Your task to perform on an android device: open sync settings in chrome Image 0: 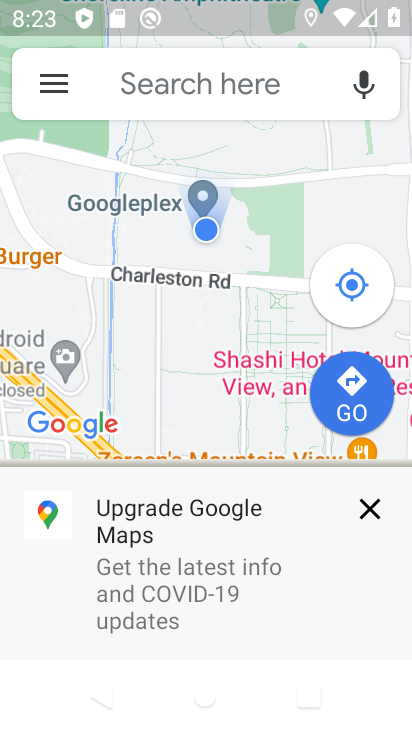
Step 0: press home button
Your task to perform on an android device: open sync settings in chrome Image 1: 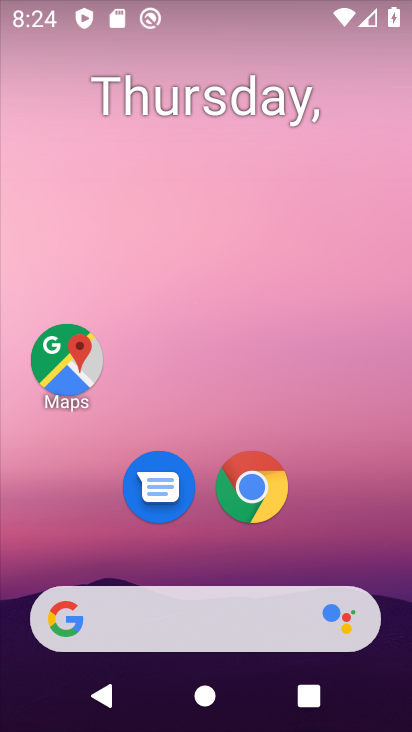
Step 1: drag from (265, 657) to (275, 285)
Your task to perform on an android device: open sync settings in chrome Image 2: 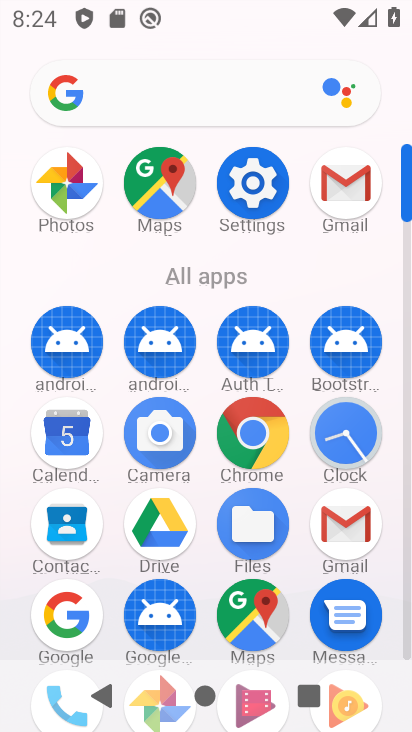
Step 2: click (246, 423)
Your task to perform on an android device: open sync settings in chrome Image 3: 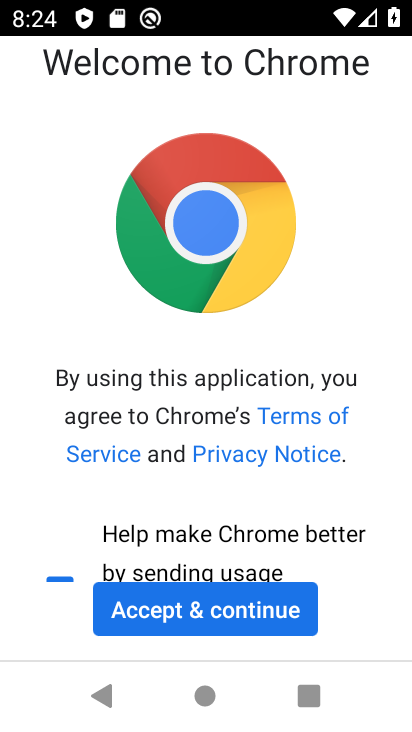
Step 3: click (166, 620)
Your task to perform on an android device: open sync settings in chrome Image 4: 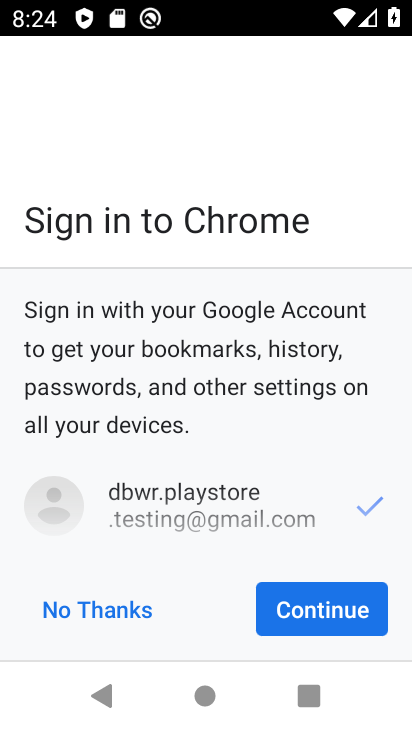
Step 4: click (310, 616)
Your task to perform on an android device: open sync settings in chrome Image 5: 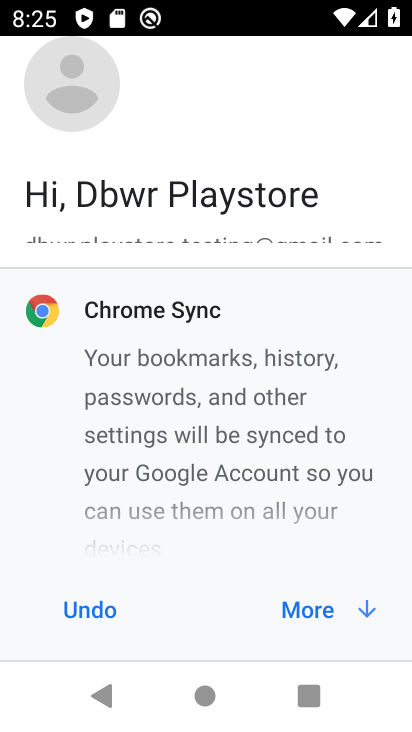
Step 5: click (376, 604)
Your task to perform on an android device: open sync settings in chrome Image 6: 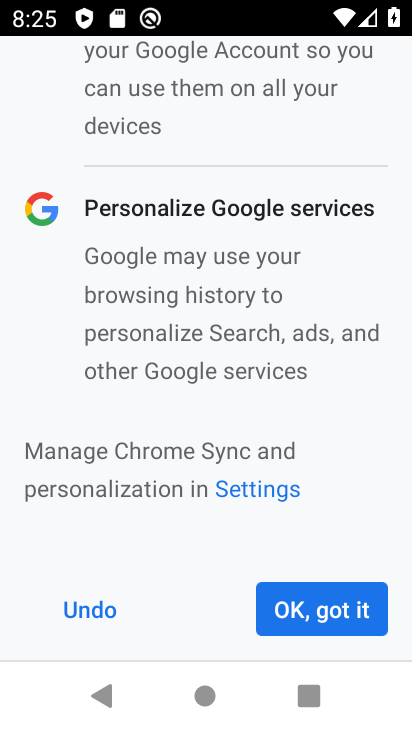
Step 6: click (372, 606)
Your task to perform on an android device: open sync settings in chrome Image 7: 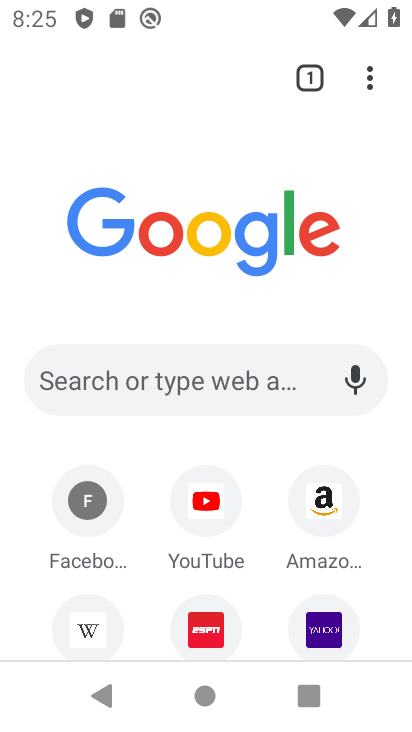
Step 7: click (360, 98)
Your task to perform on an android device: open sync settings in chrome Image 8: 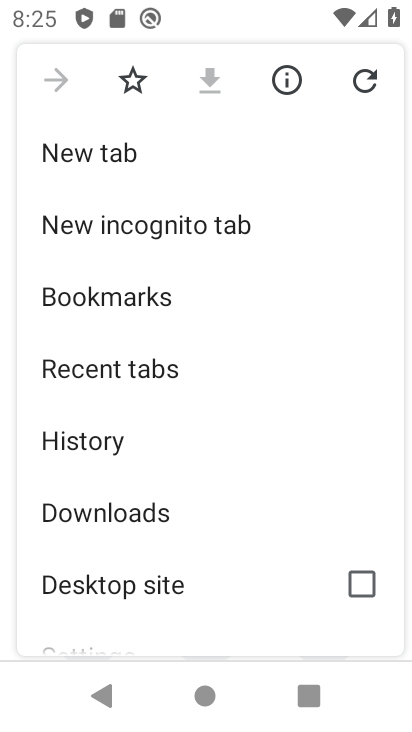
Step 8: drag from (115, 560) to (146, 444)
Your task to perform on an android device: open sync settings in chrome Image 9: 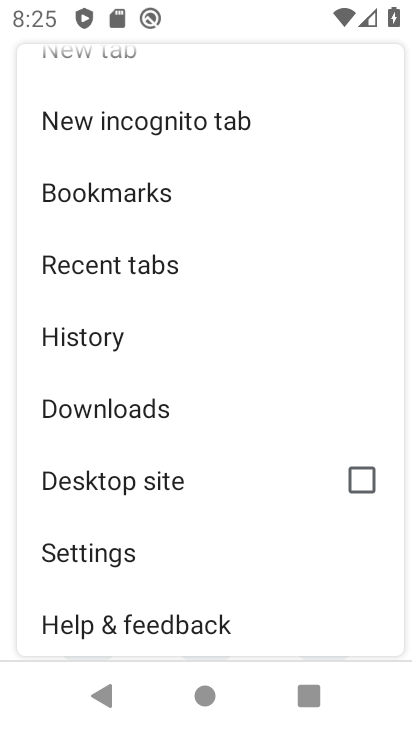
Step 9: click (106, 567)
Your task to perform on an android device: open sync settings in chrome Image 10: 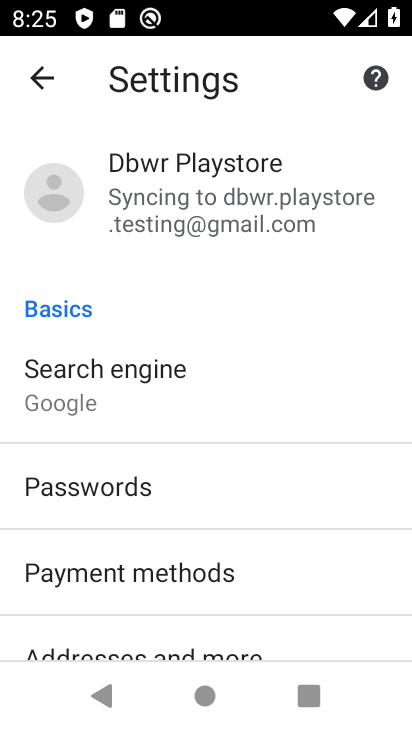
Step 10: drag from (140, 562) to (269, 293)
Your task to perform on an android device: open sync settings in chrome Image 11: 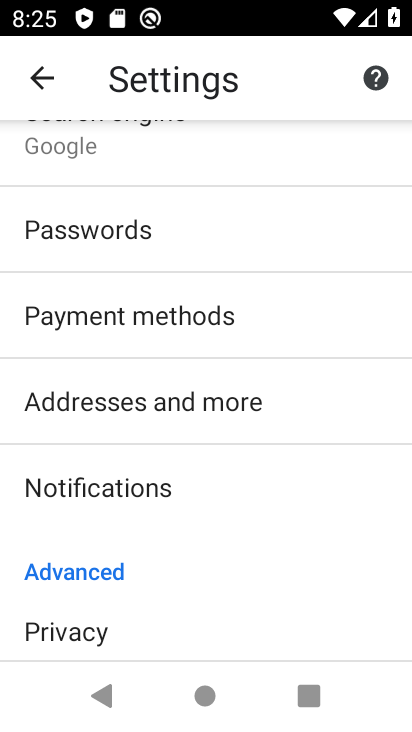
Step 11: drag from (171, 547) to (250, 259)
Your task to perform on an android device: open sync settings in chrome Image 12: 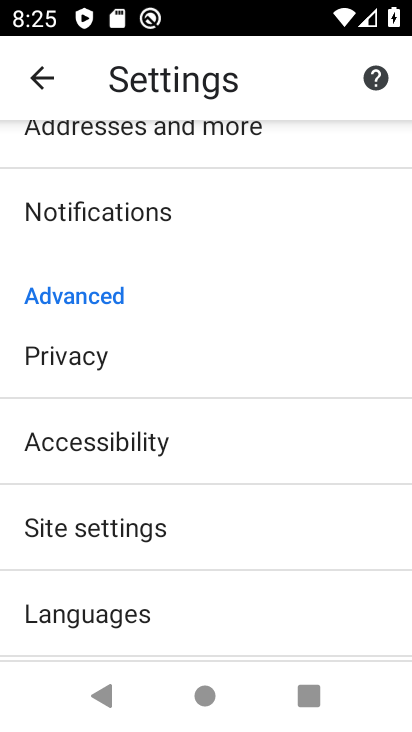
Step 12: click (147, 533)
Your task to perform on an android device: open sync settings in chrome Image 13: 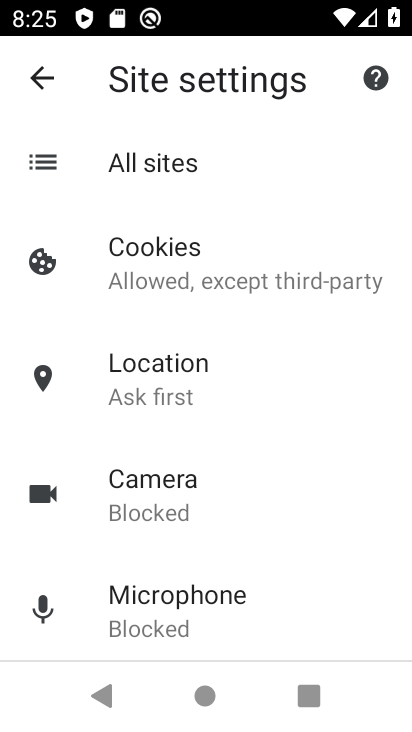
Step 13: drag from (143, 601) to (170, 408)
Your task to perform on an android device: open sync settings in chrome Image 14: 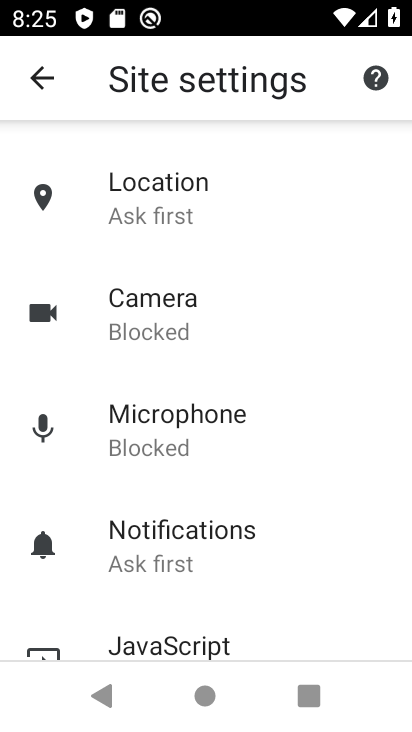
Step 14: drag from (179, 554) to (287, 352)
Your task to perform on an android device: open sync settings in chrome Image 15: 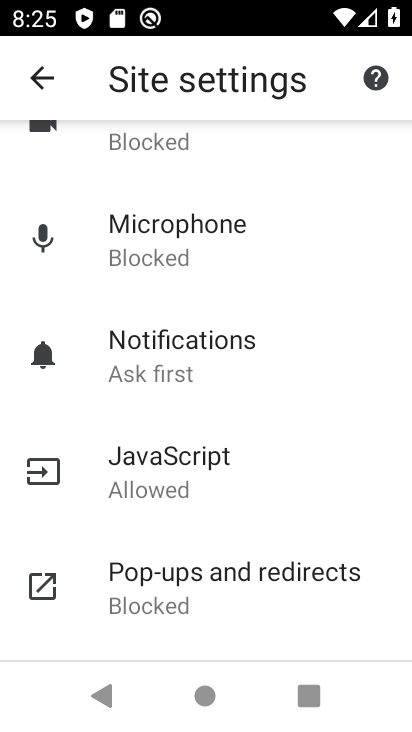
Step 15: drag from (203, 585) to (265, 345)
Your task to perform on an android device: open sync settings in chrome Image 16: 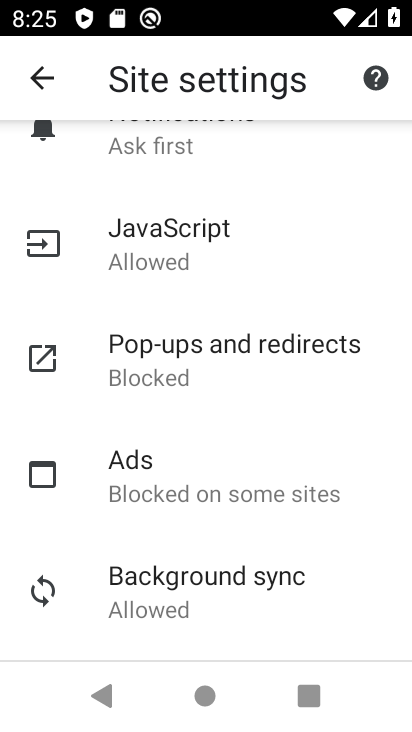
Step 16: click (190, 569)
Your task to perform on an android device: open sync settings in chrome Image 17: 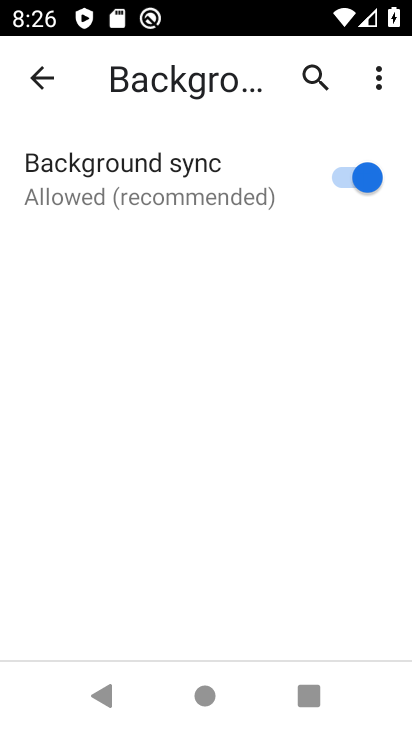
Step 17: task complete